Your task to perform on an android device: Open calendar and show me the first week of next month Image 0: 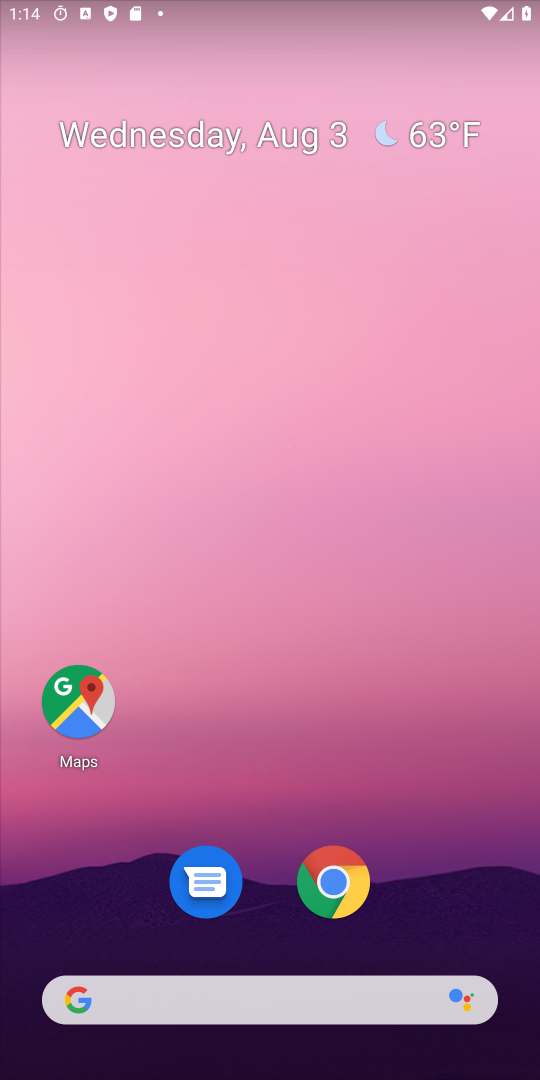
Step 0: drag from (257, 770) to (374, 24)
Your task to perform on an android device: Open calendar and show me the first week of next month Image 1: 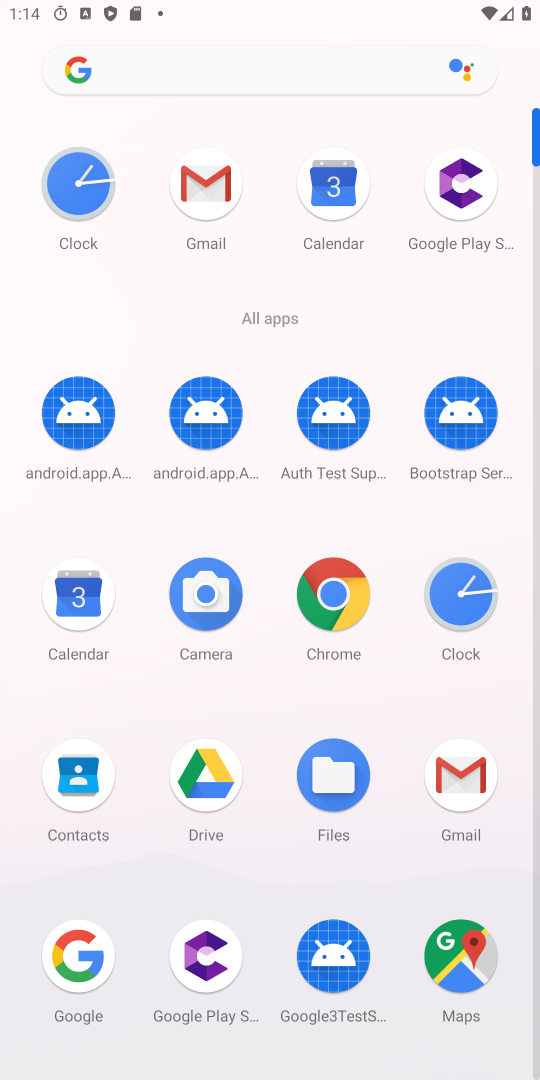
Step 1: click (92, 621)
Your task to perform on an android device: Open calendar and show me the first week of next month Image 2: 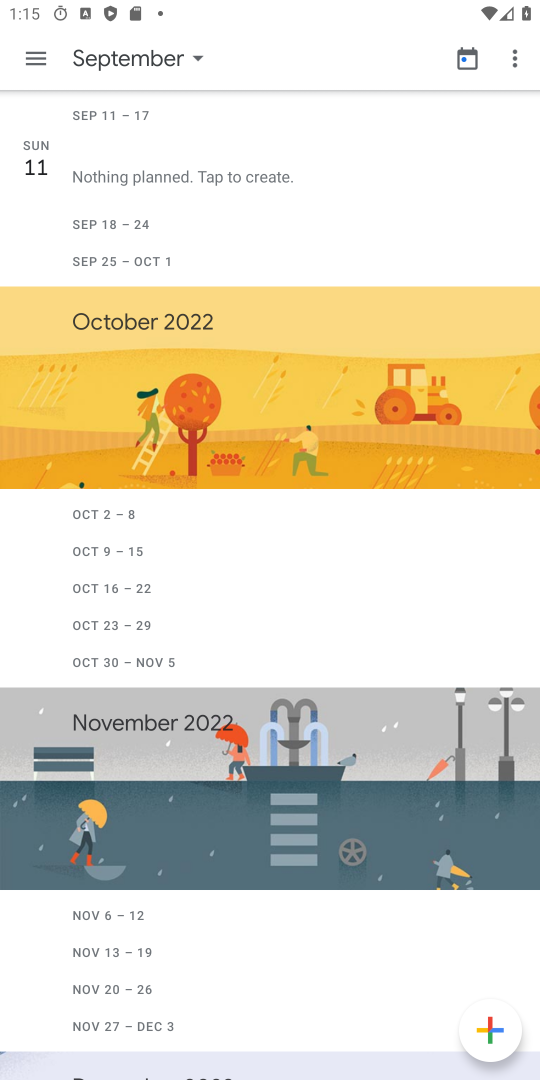
Step 2: click (140, 53)
Your task to perform on an android device: Open calendar and show me the first week of next month Image 3: 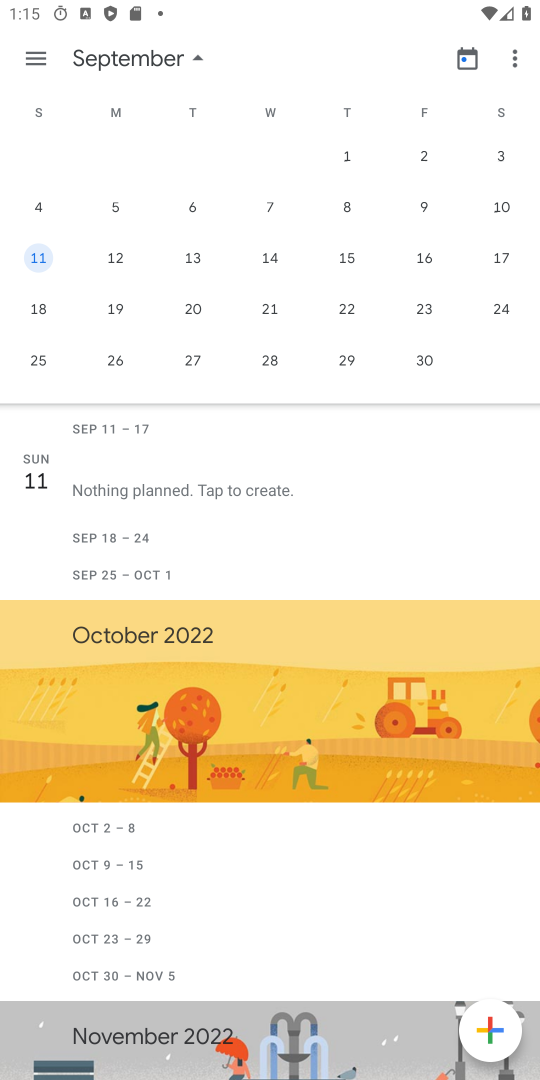
Step 3: click (45, 213)
Your task to perform on an android device: Open calendar and show me the first week of next month Image 4: 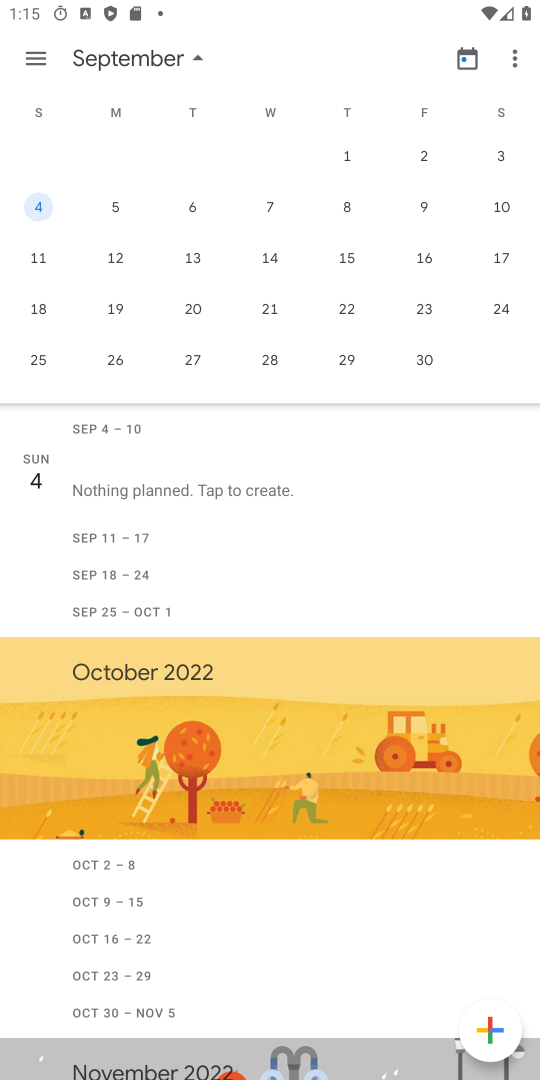
Step 4: click (203, 64)
Your task to perform on an android device: Open calendar and show me the first week of next month Image 5: 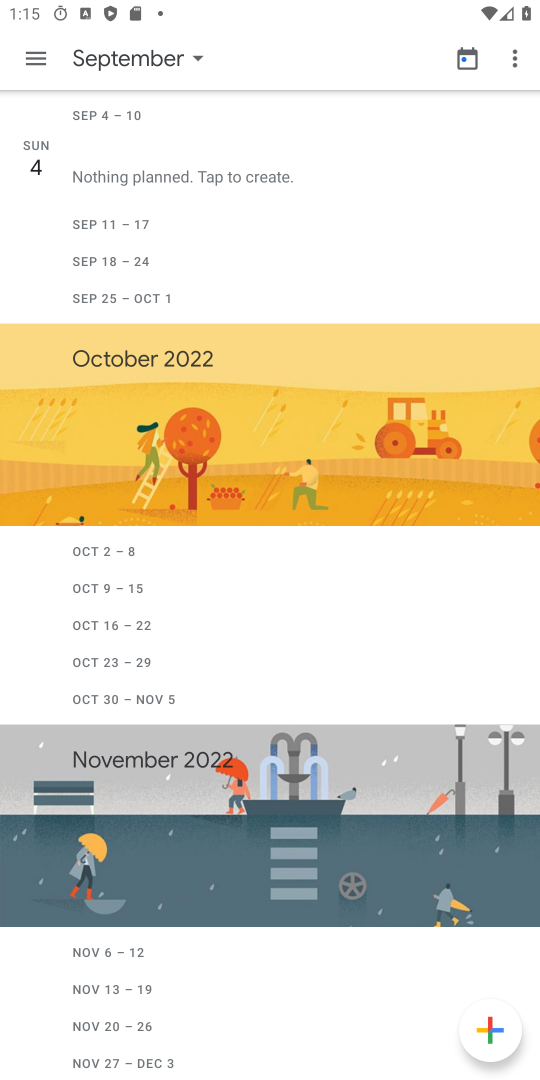
Step 5: click (43, 59)
Your task to perform on an android device: Open calendar and show me the first week of next month Image 6: 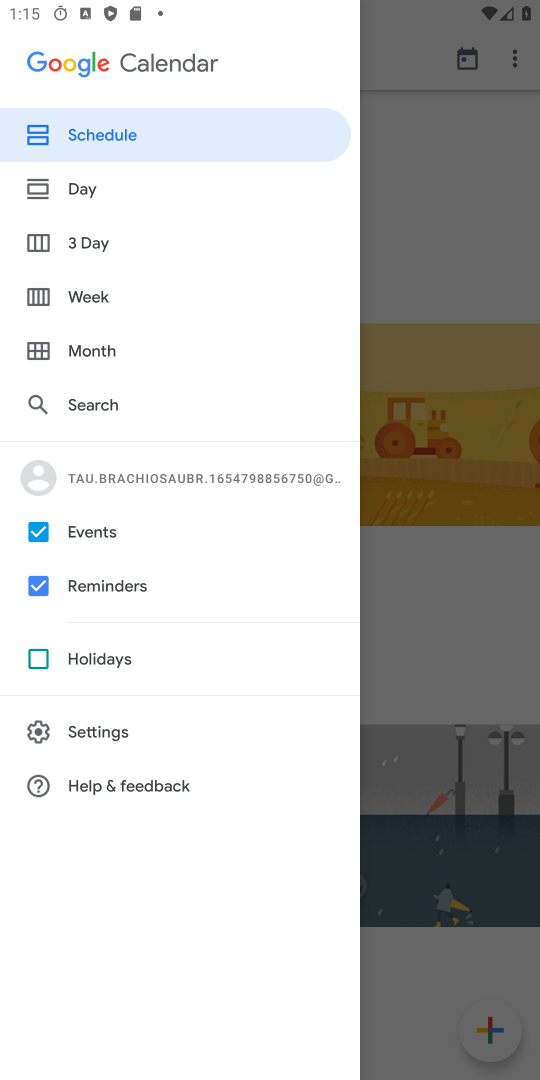
Step 6: click (133, 305)
Your task to perform on an android device: Open calendar and show me the first week of next month Image 7: 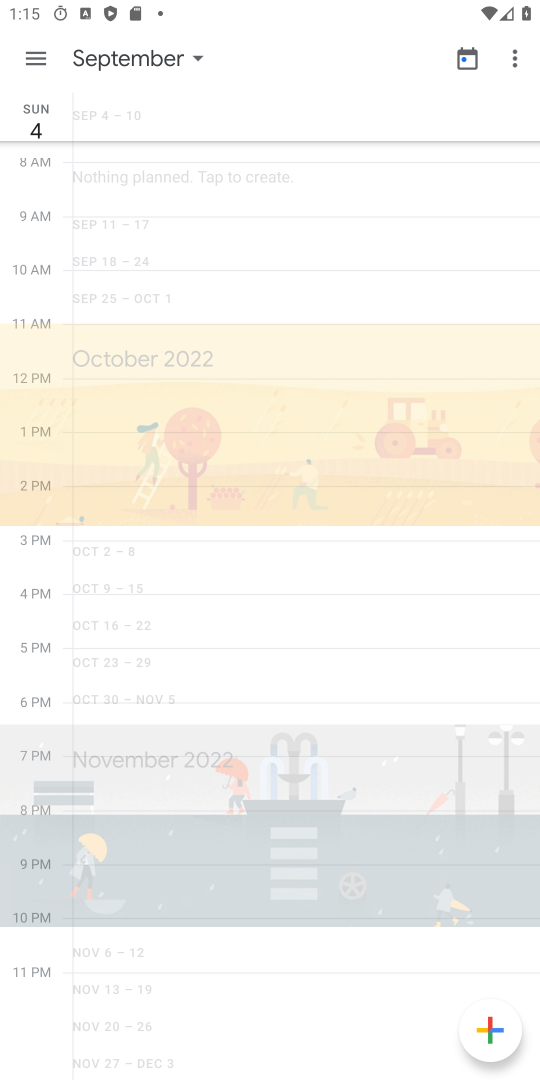
Step 7: task complete